Your task to perform on an android device: Open the map Image 0: 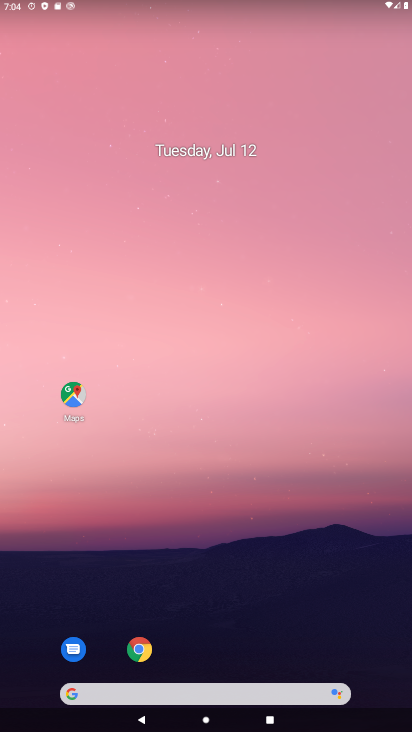
Step 0: click (70, 393)
Your task to perform on an android device: Open the map Image 1: 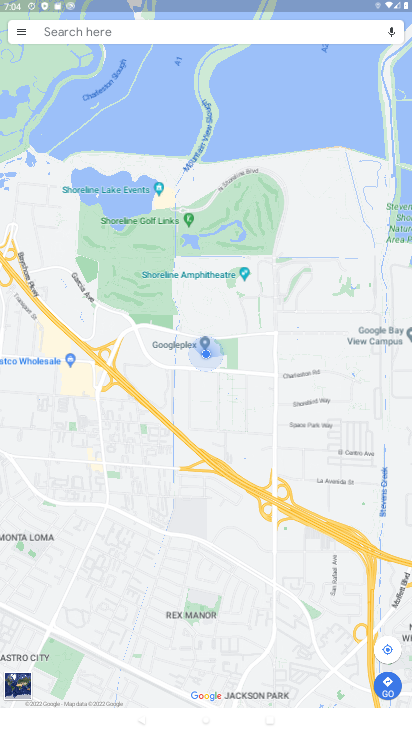
Step 1: task complete